Your task to perform on an android device: check the backup settings in the google photos Image 0: 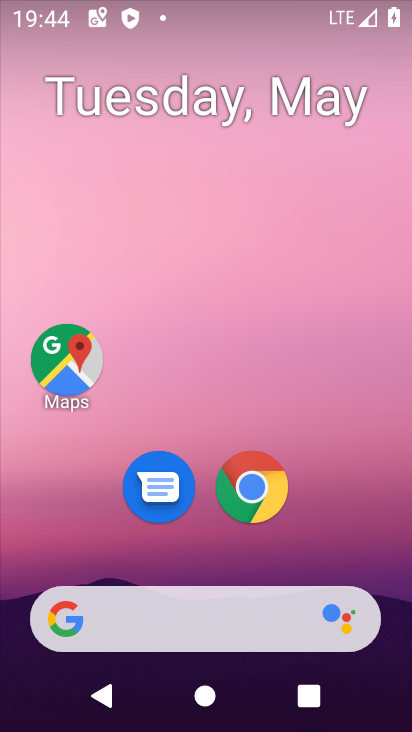
Step 0: drag from (342, 534) to (205, 94)
Your task to perform on an android device: check the backup settings in the google photos Image 1: 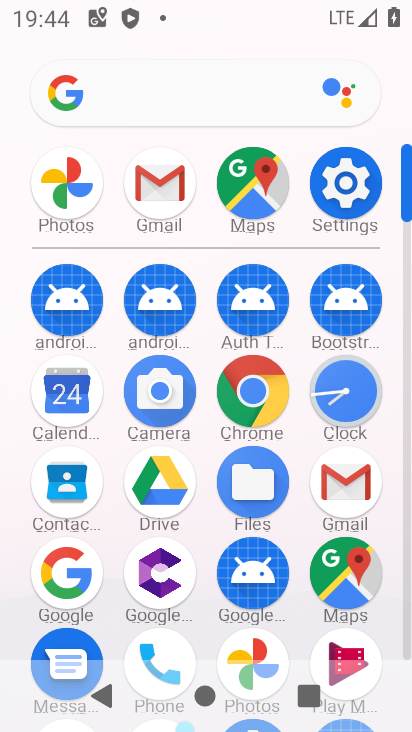
Step 1: click (58, 186)
Your task to perform on an android device: check the backup settings in the google photos Image 2: 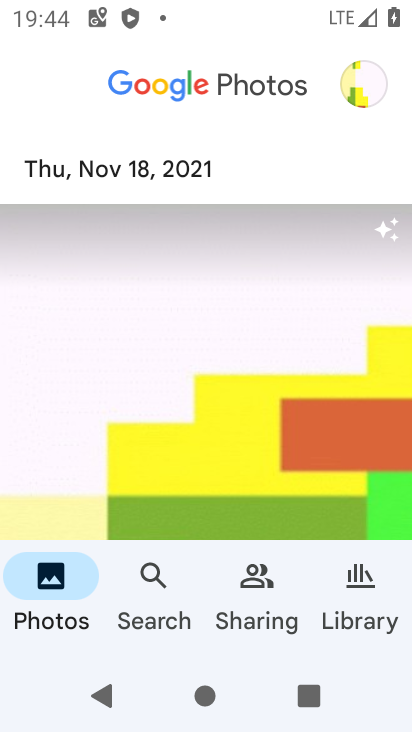
Step 2: click (357, 77)
Your task to perform on an android device: check the backup settings in the google photos Image 3: 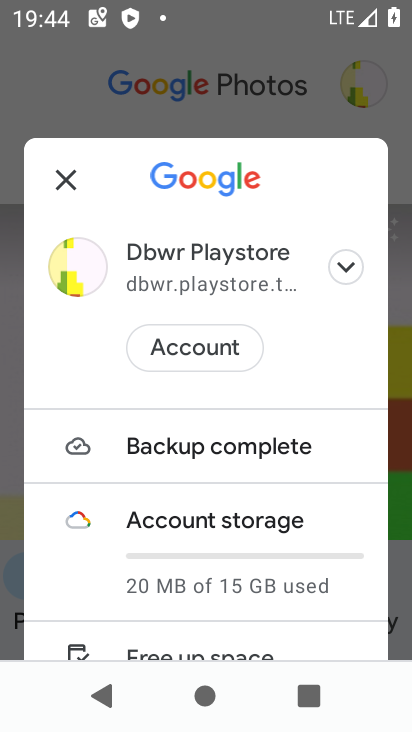
Step 3: click (212, 440)
Your task to perform on an android device: check the backup settings in the google photos Image 4: 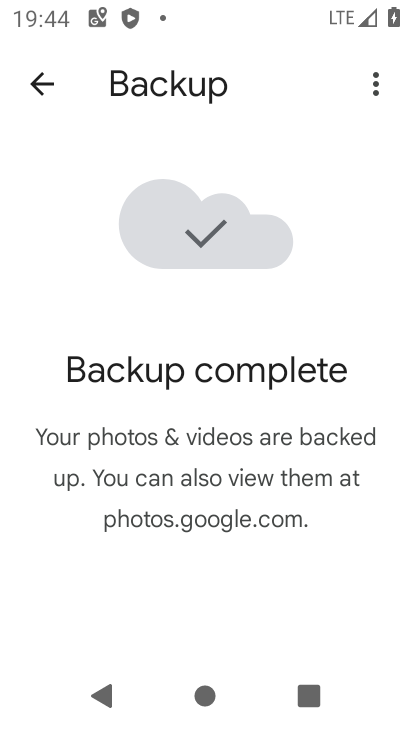
Step 4: click (37, 78)
Your task to perform on an android device: check the backup settings in the google photos Image 5: 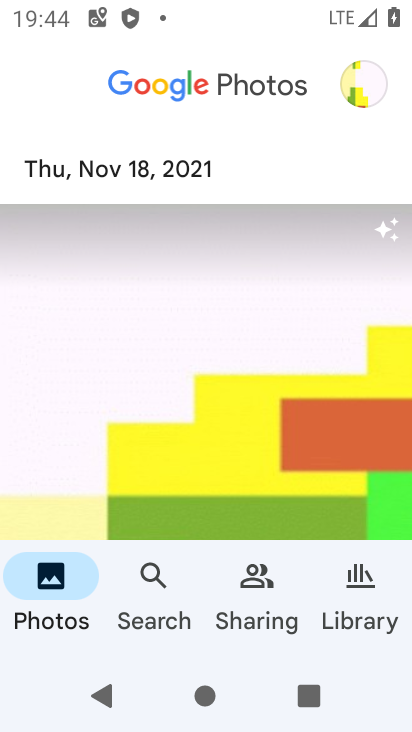
Step 5: click (358, 85)
Your task to perform on an android device: check the backup settings in the google photos Image 6: 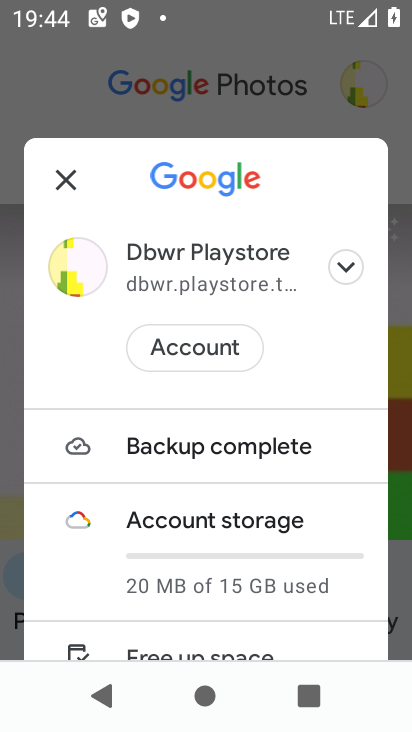
Step 6: drag from (293, 488) to (198, 200)
Your task to perform on an android device: check the backup settings in the google photos Image 7: 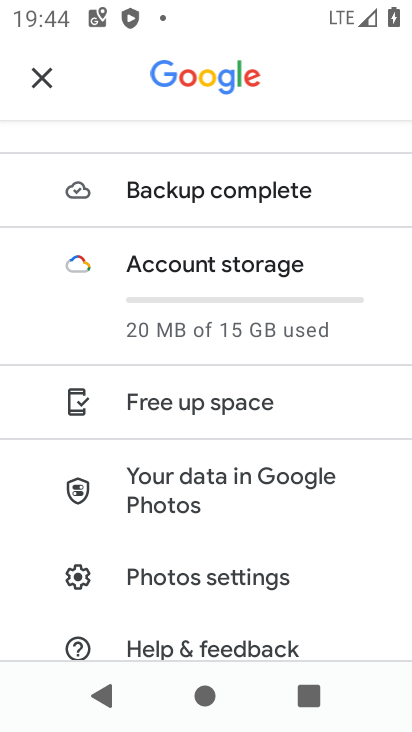
Step 7: click (197, 576)
Your task to perform on an android device: check the backup settings in the google photos Image 8: 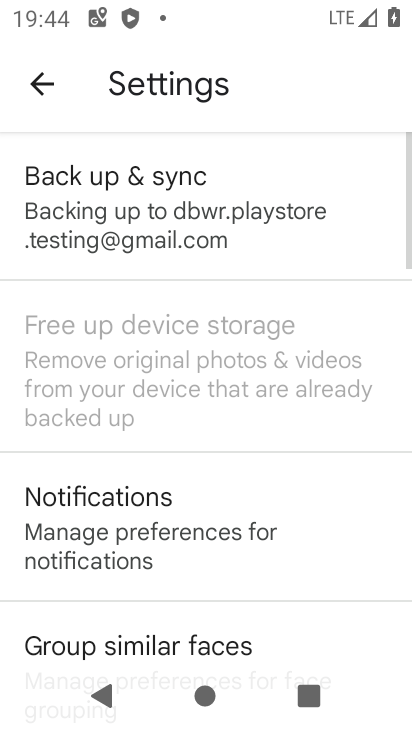
Step 8: click (128, 182)
Your task to perform on an android device: check the backup settings in the google photos Image 9: 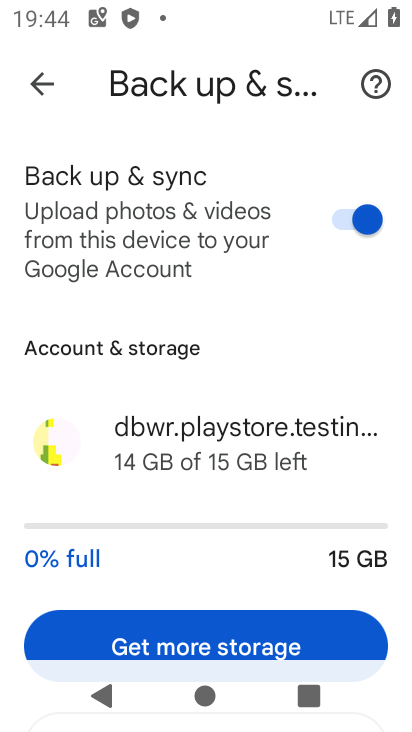
Step 9: task complete